Your task to perform on an android device: Go to Wikipedia Image 0: 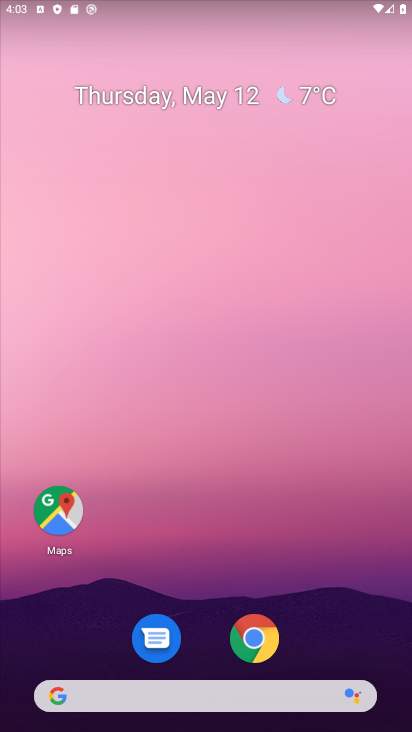
Step 0: press home button
Your task to perform on an android device: Go to Wikipedia Image 1: 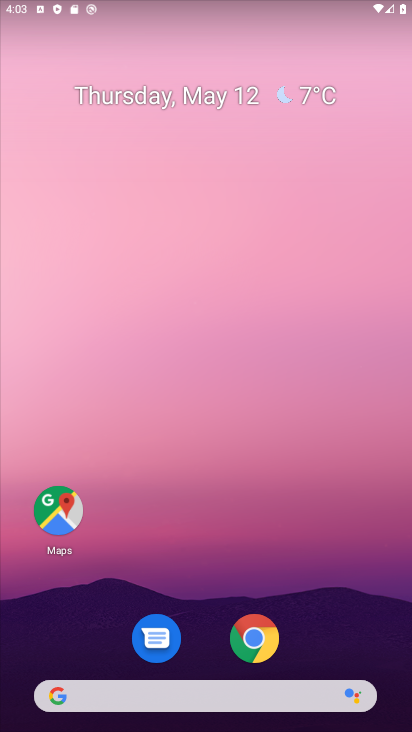
Step 1: click (258, 633)
Your task to perform on an android device: Go to Wikipedia Image 2: 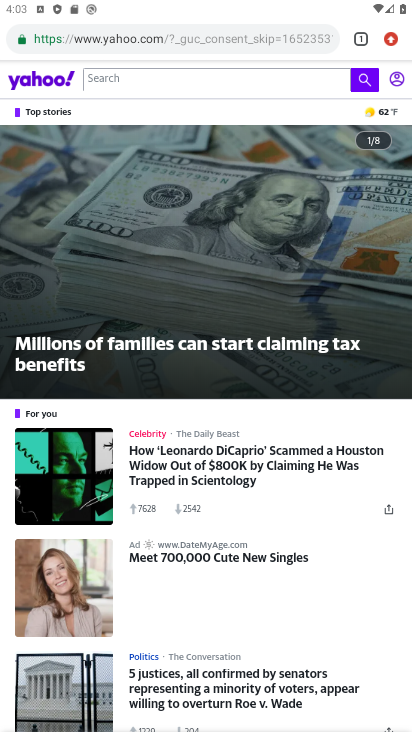
Step 2: click (364, 32)
Your task to perform on an android device: Go to Wikipedia Image 3: 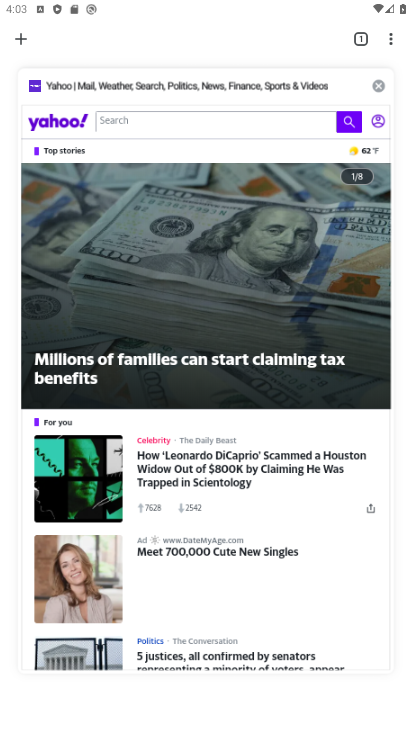
Step 3: click (23, 41)
Your task to perform on an android device: Go to Wikipedia Image 4: 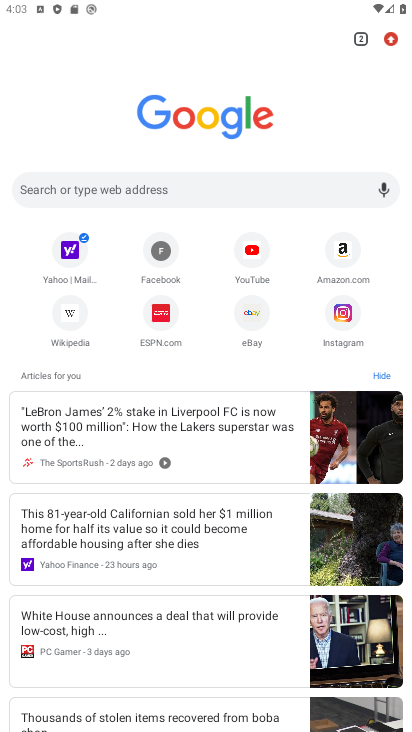
Step 4: click (71, 319)
Your task to perform on an android device: Go to Wikipedia Image 5: 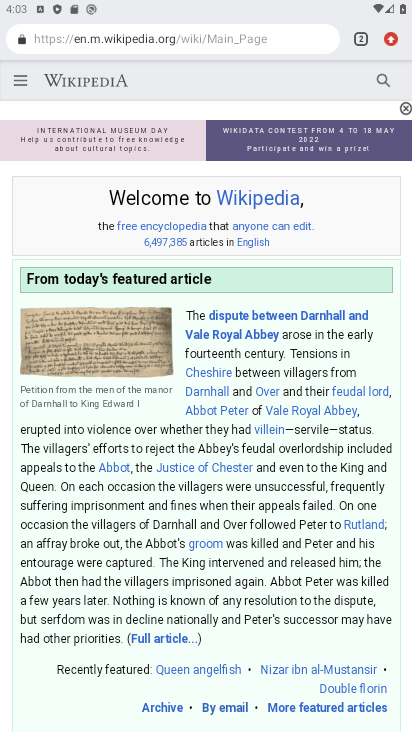
Step 5: task complete